Your task to perform on an android device: Add "amazon basics triple a" to the cart on amazon.com Image 0: 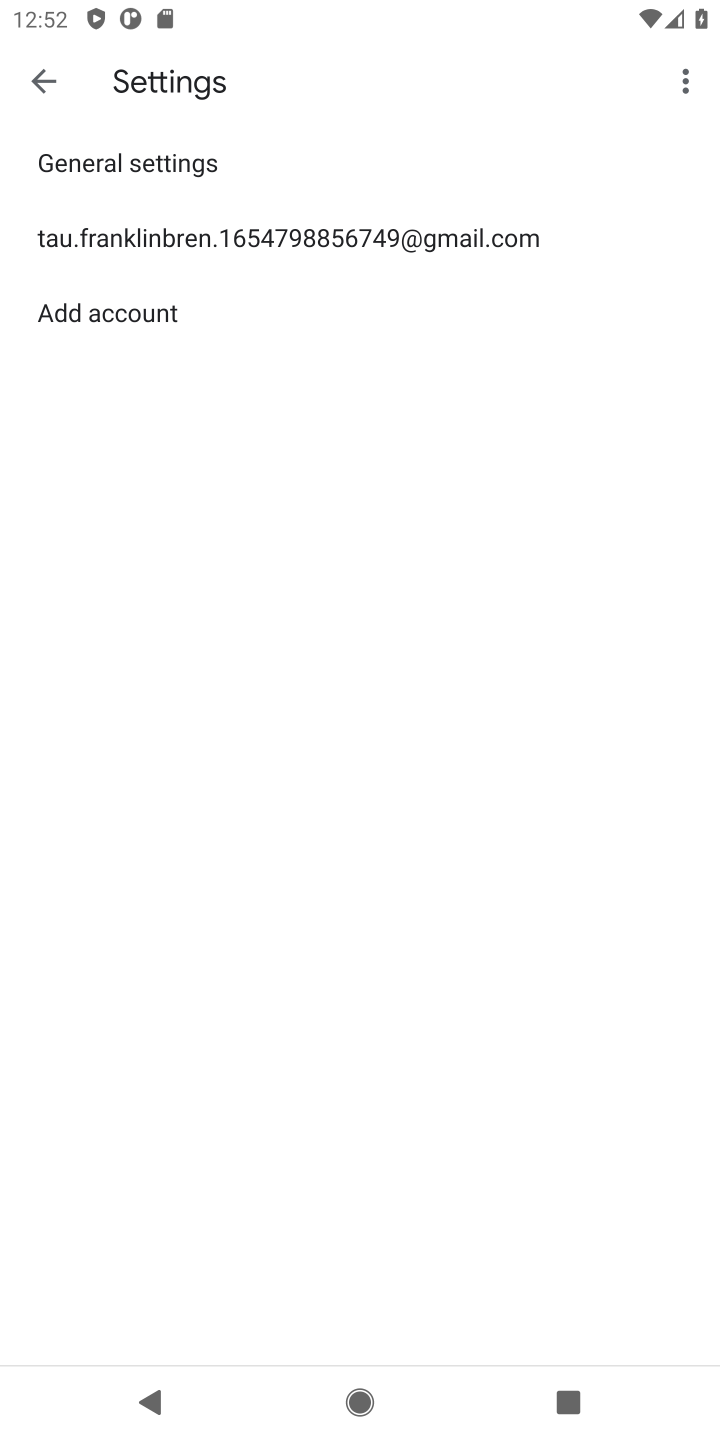
Step 0: press home button
Your task to perform on an android device: Add "amazon basics triple a" to the cart on amazon.com Image 1: 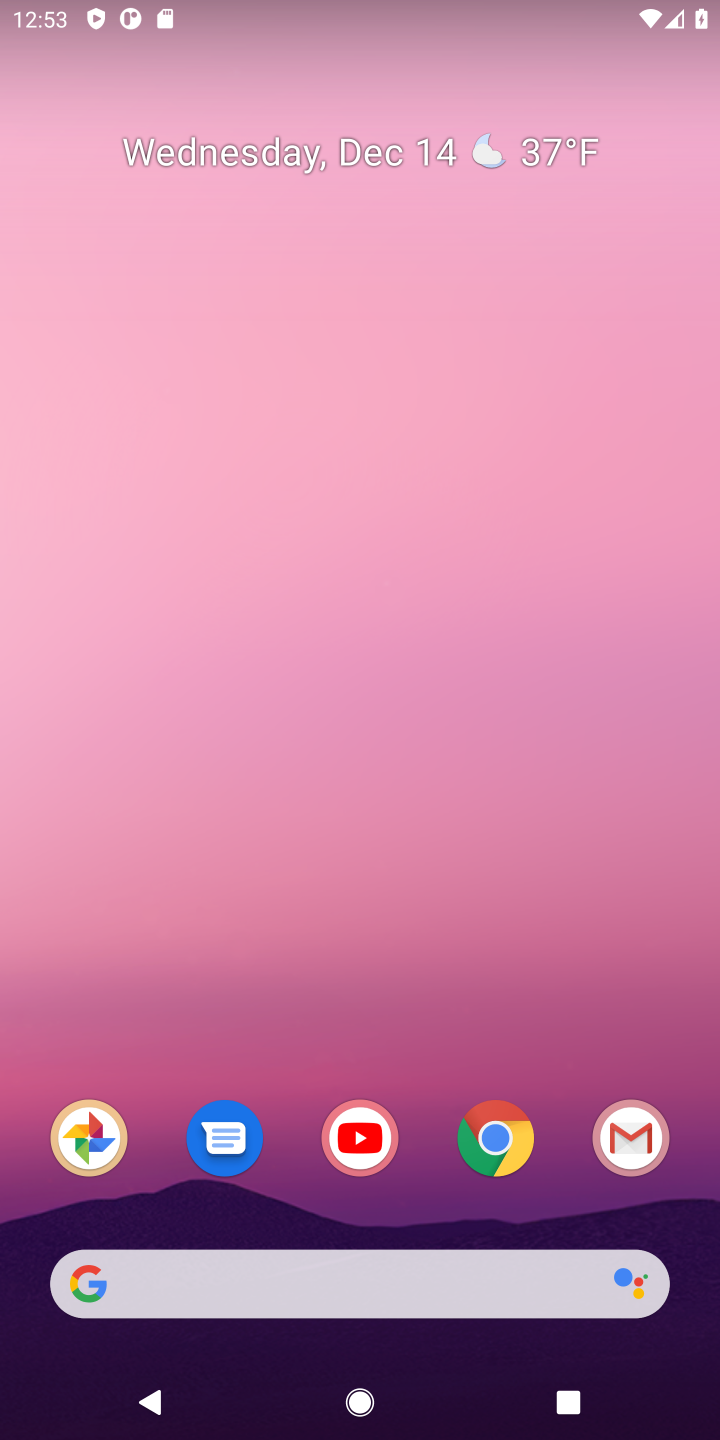
Step 1: click (497, 1132)
Your task to perform on an android device: Add "amazon basics triple a" to the cart on amazon.com Image 2: 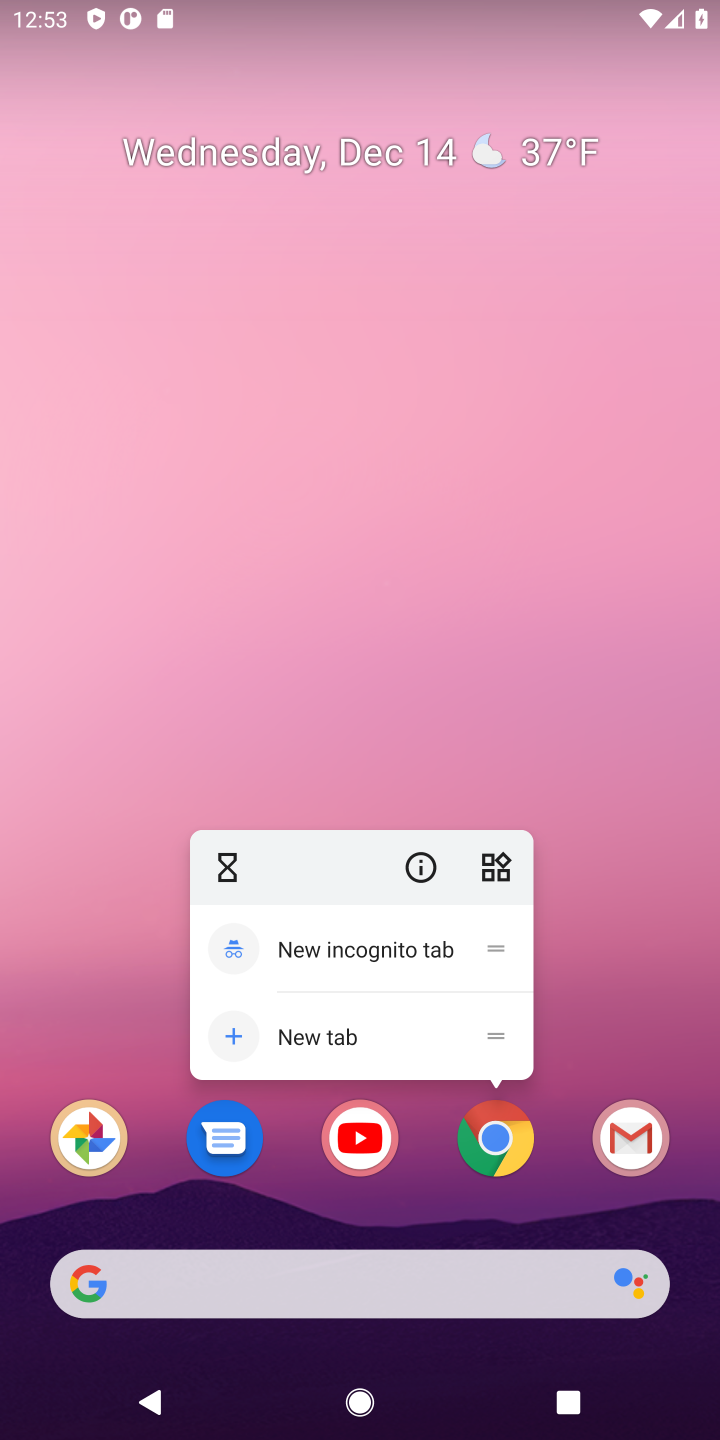
Step 2: click (482, 1136)
Your task to perform on an android device: Add "amazon basics triple a" to the cart on amazon.com Image 3: 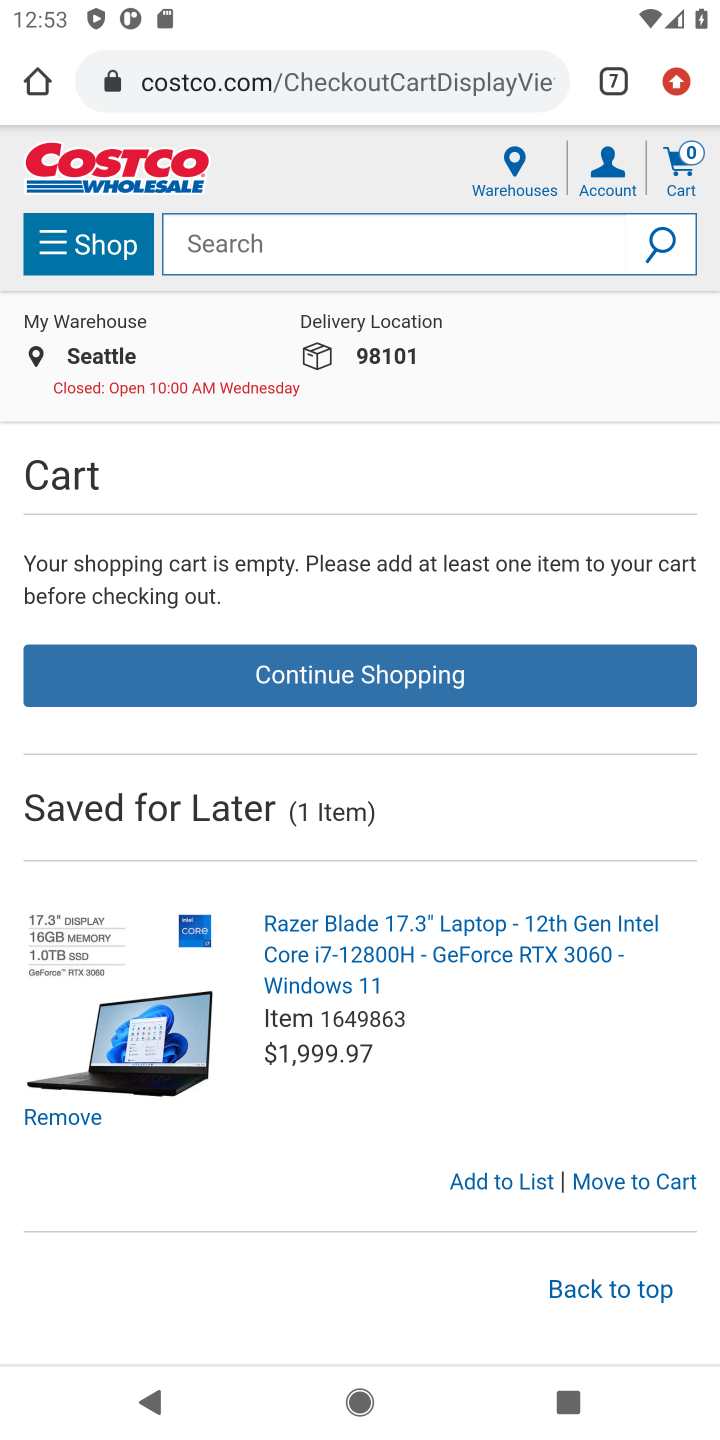
Step 3: click (615, 74)
Your task to perform on an android device: Add "amazon basics triple a" to the cart on amazon.com Image 4: 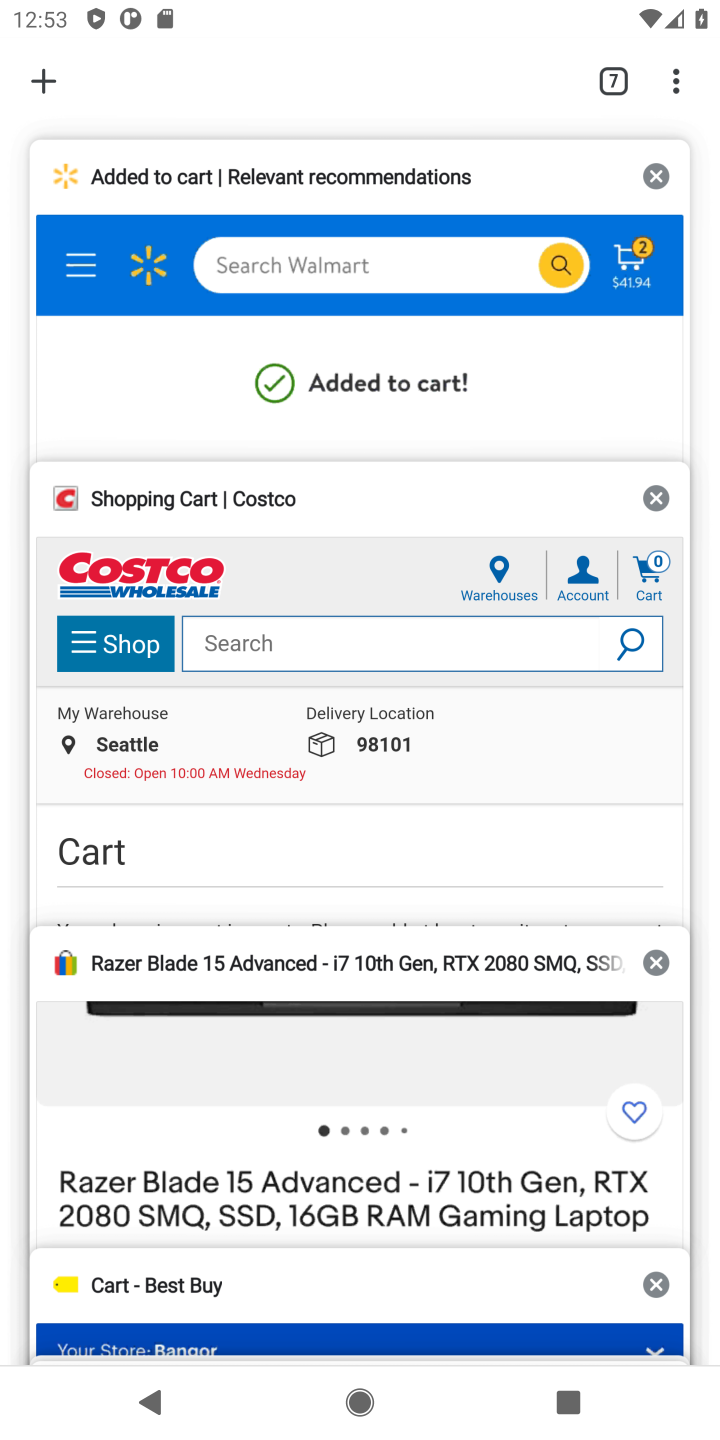
Step 4: drag from (416, 1139) to (406, 734)
Your task to perform on an android device: Add "amazon basics triple a" to the cart on amazon.com Image 5: 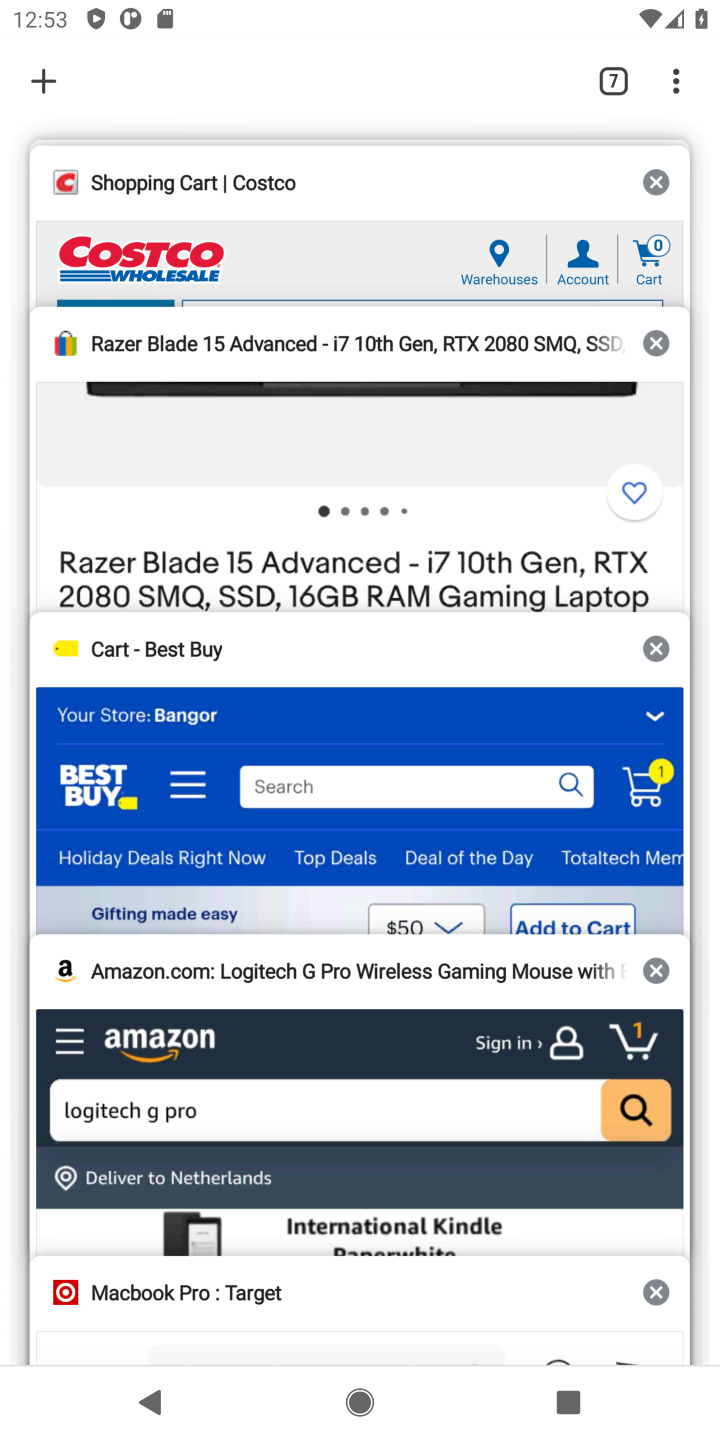
Step 5: click (364, 1054)
Your task to perform on an android device: Add "amazon basics triple a" to the cart on amazon.com Image 6: 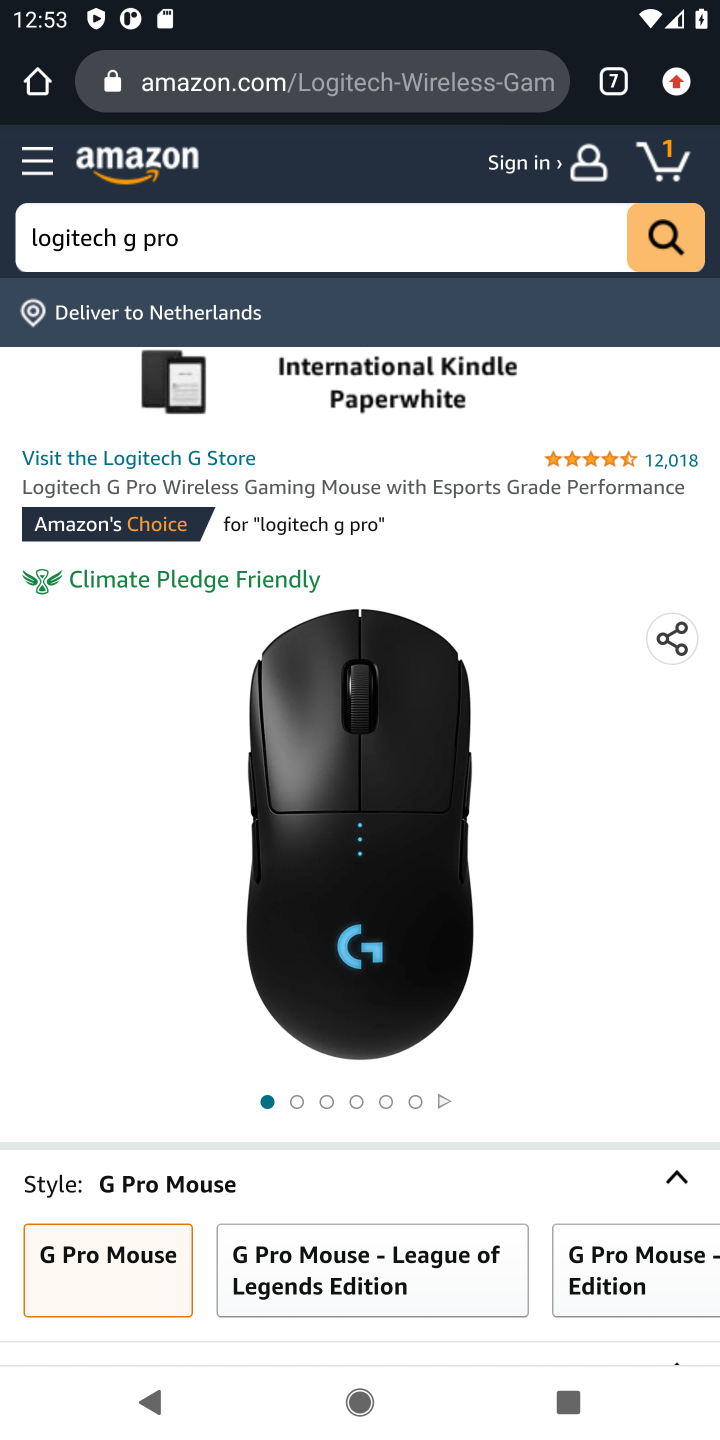
Step 6: click (543, 253)
Your task to perform on an android device: Add "amazon basics triple a" to the cart on amazon.com Image 7: 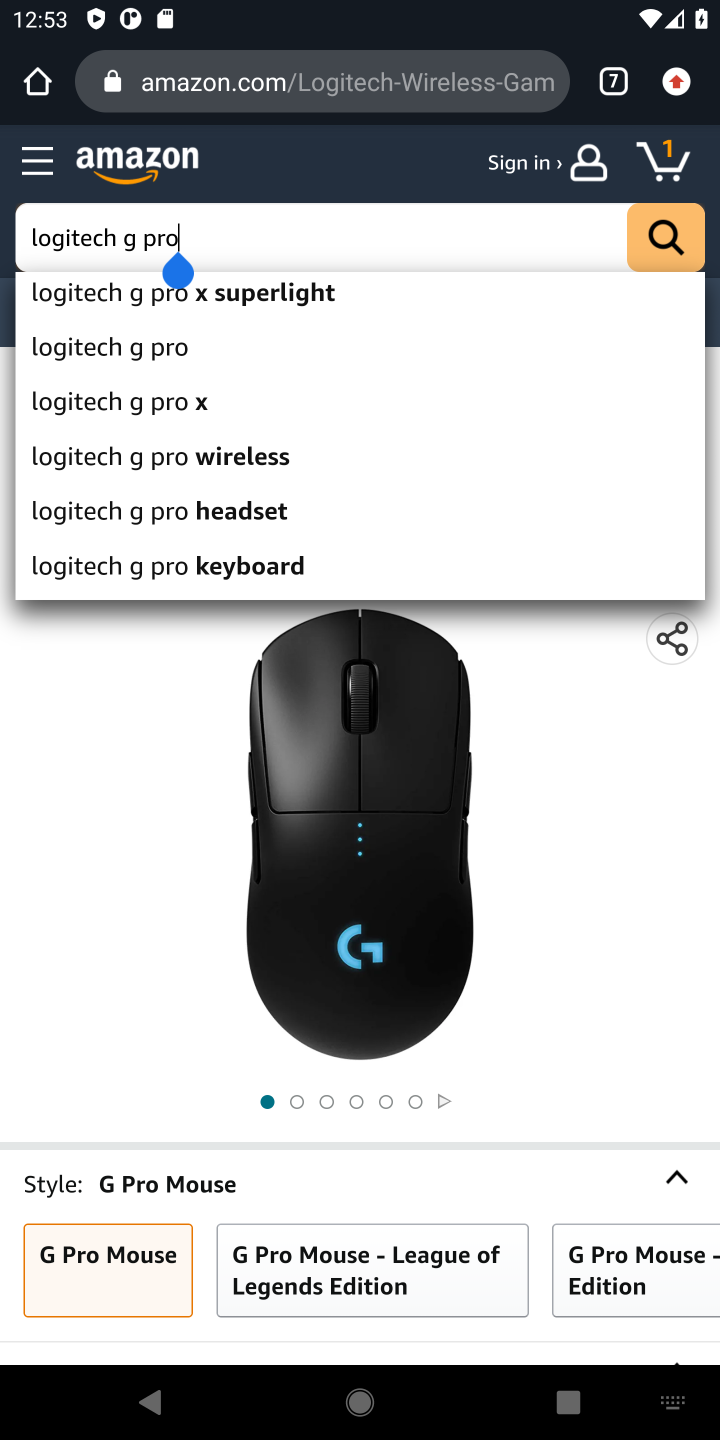
Step 7: click (555, 237)
Your task to perform on an android device: Add "amazon basics triple a" to the cart on amazon.com Image 8: 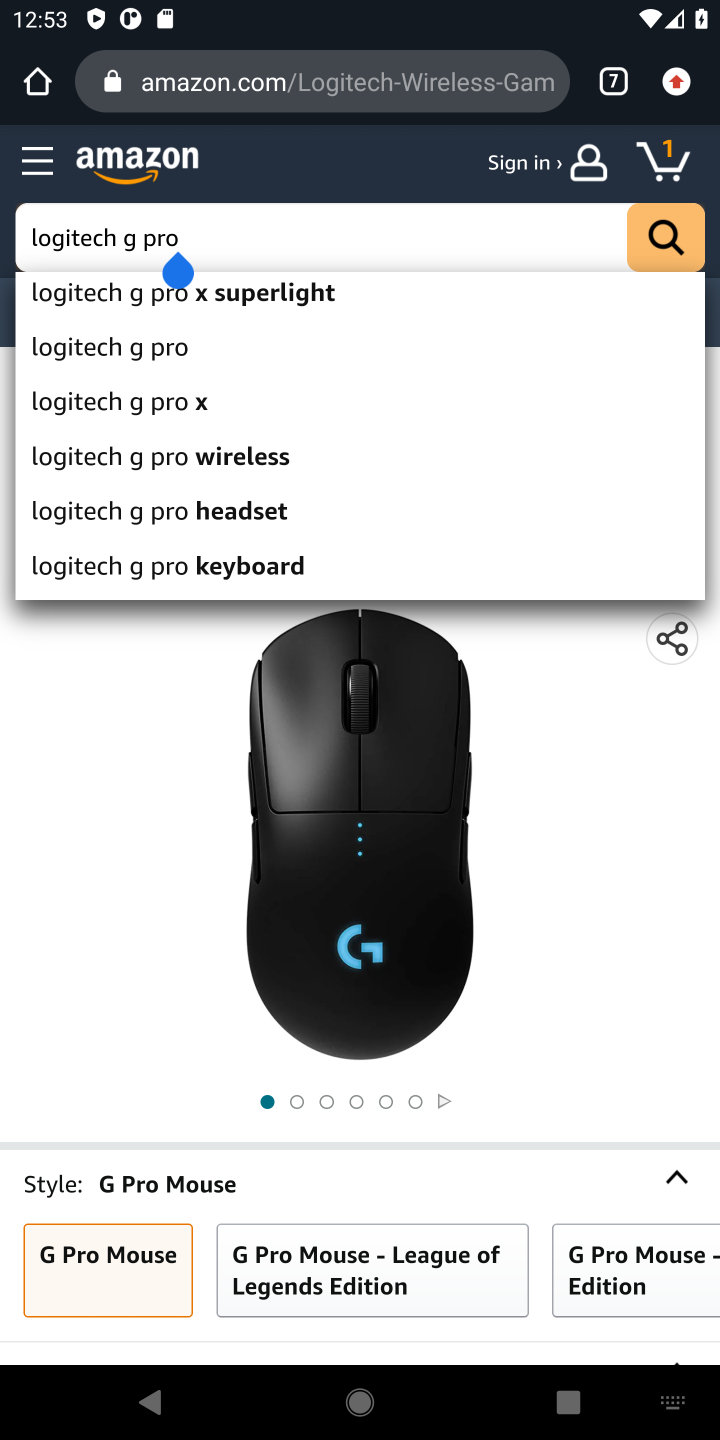
Step 8: click (651, 223)
Your task to perform on an android device: Add "amazon basics triple a" to the cart on amazon.com Image 9: 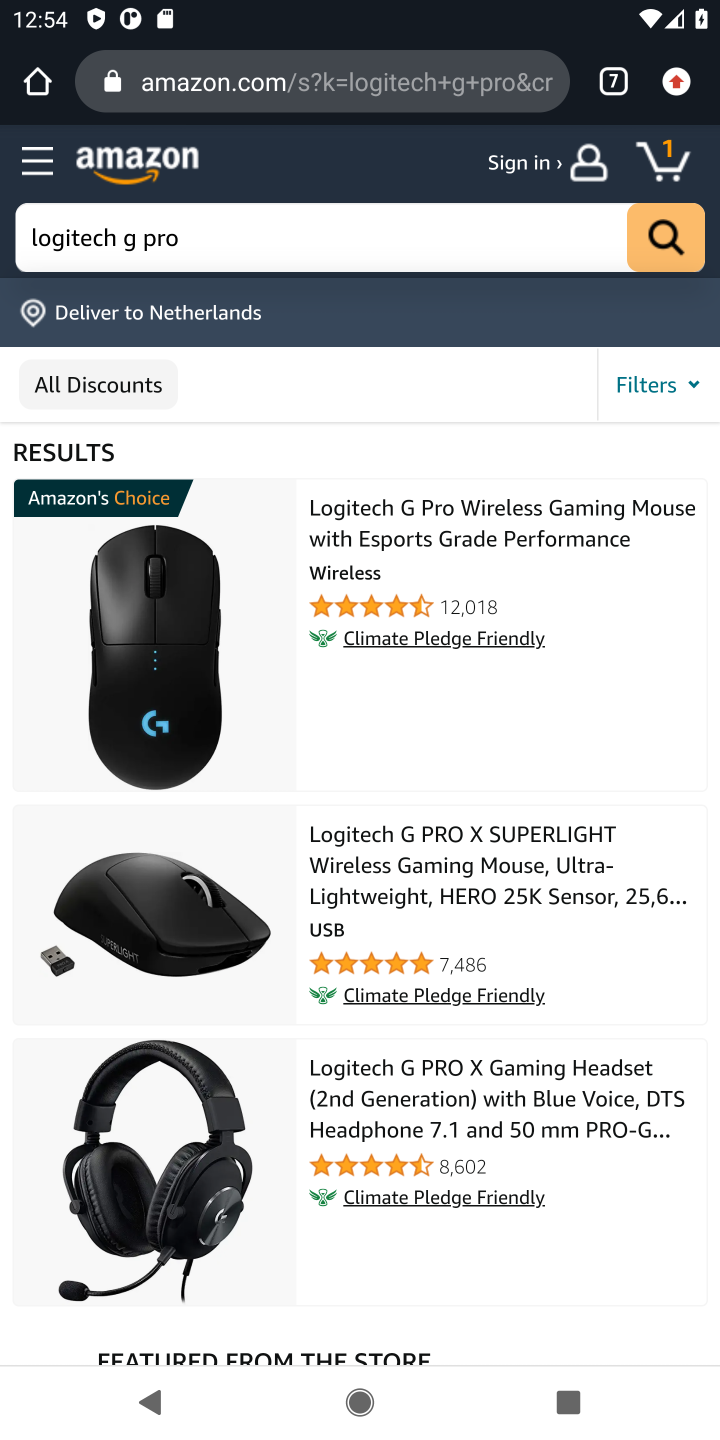
Step 9: click (347, 241)
Your task to perform on an android device: Add "amazon basics triple a" to the cart on amazon.com Image 10: 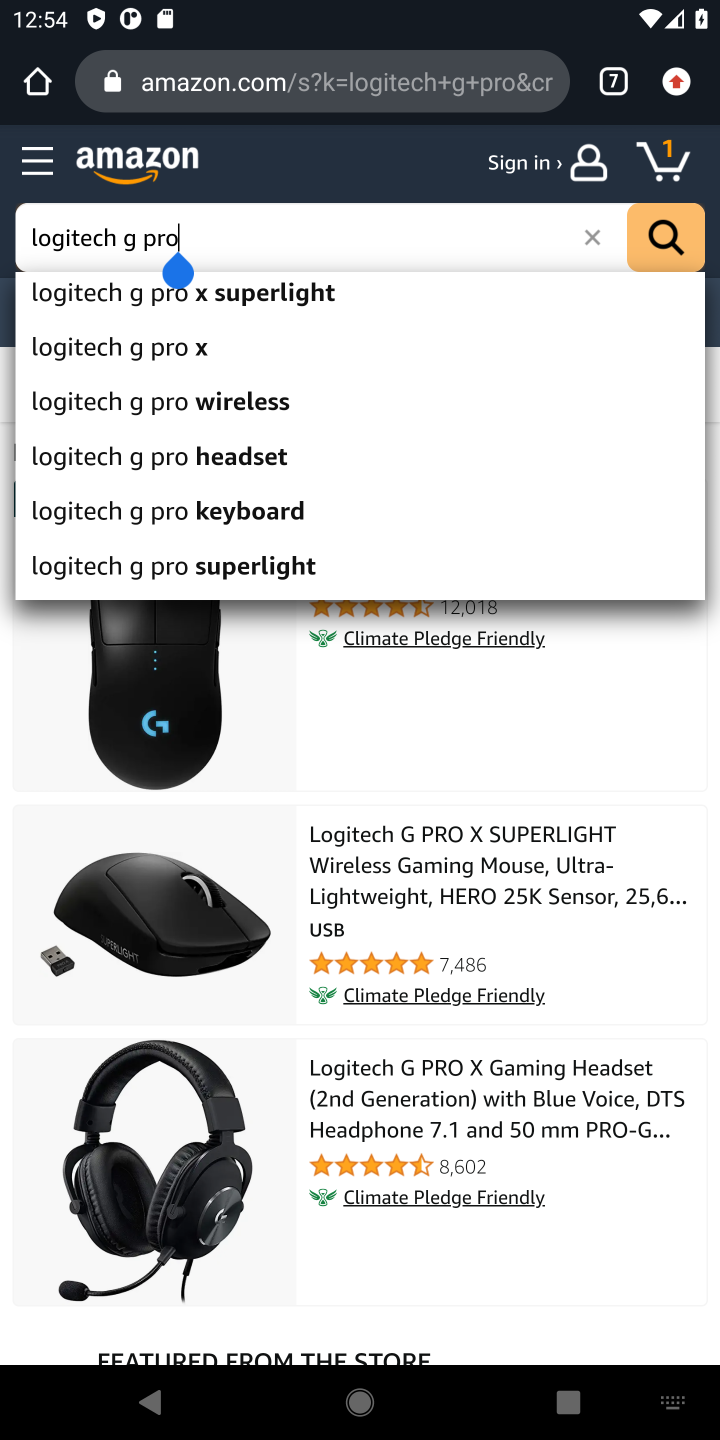
Step 10: click (591, 239)
Your task to perform on an android device: Add "amazon basics triple a" to the cart on amazon.com Image 11: 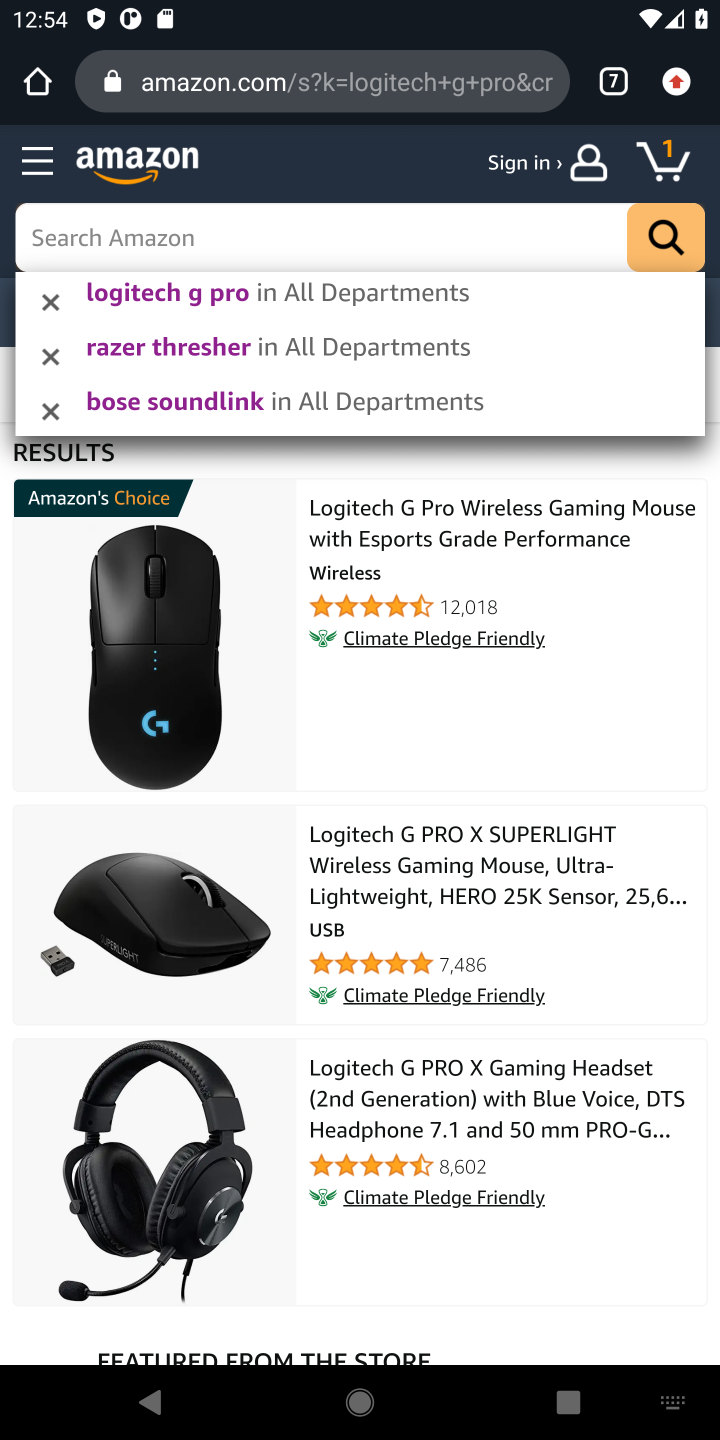
Step 11: type "amazon basics triple a batteries"
Your task to perform on an android device: Add "amazon basics triple a" to the cart on amazon.com Image 12: 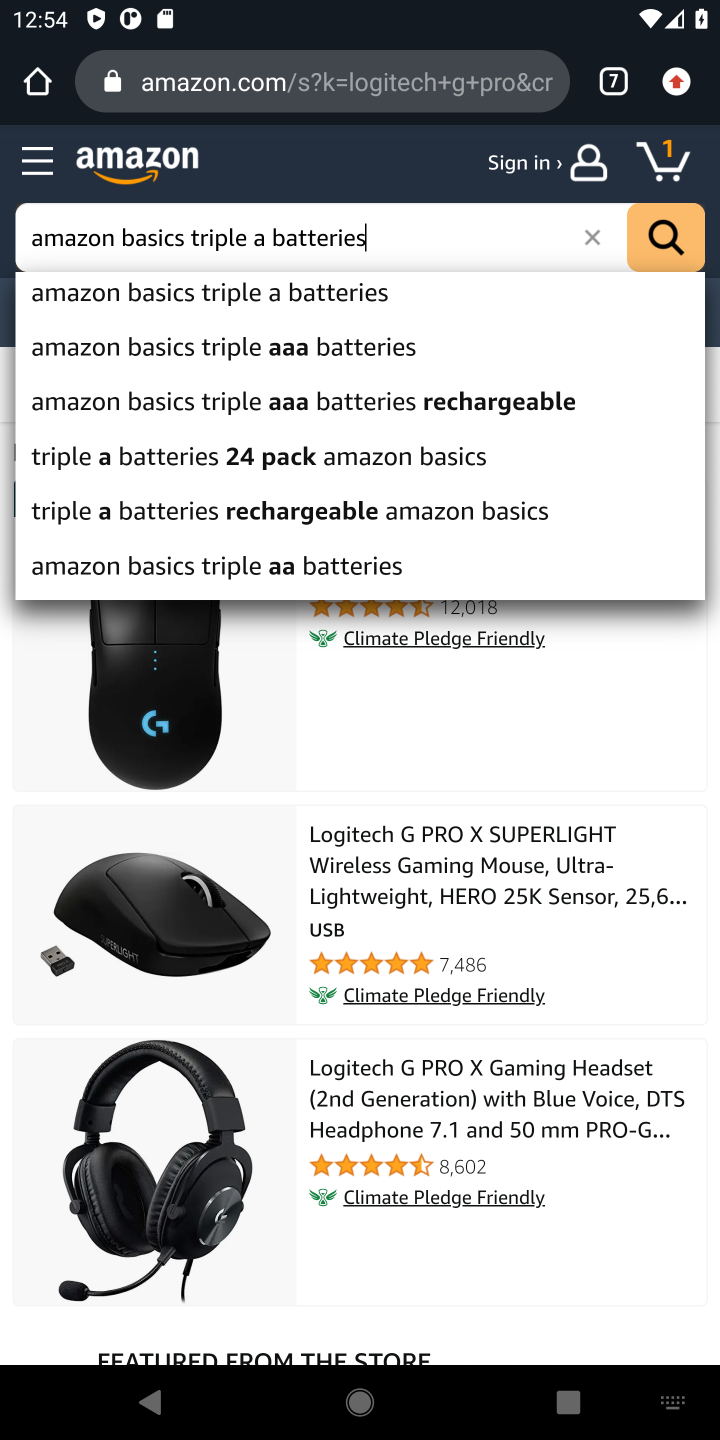
Step 12: click (348, 288)
Your task to perform on an android device: Add "amazon basics triple a" to the cart on amazon.com Image 13: 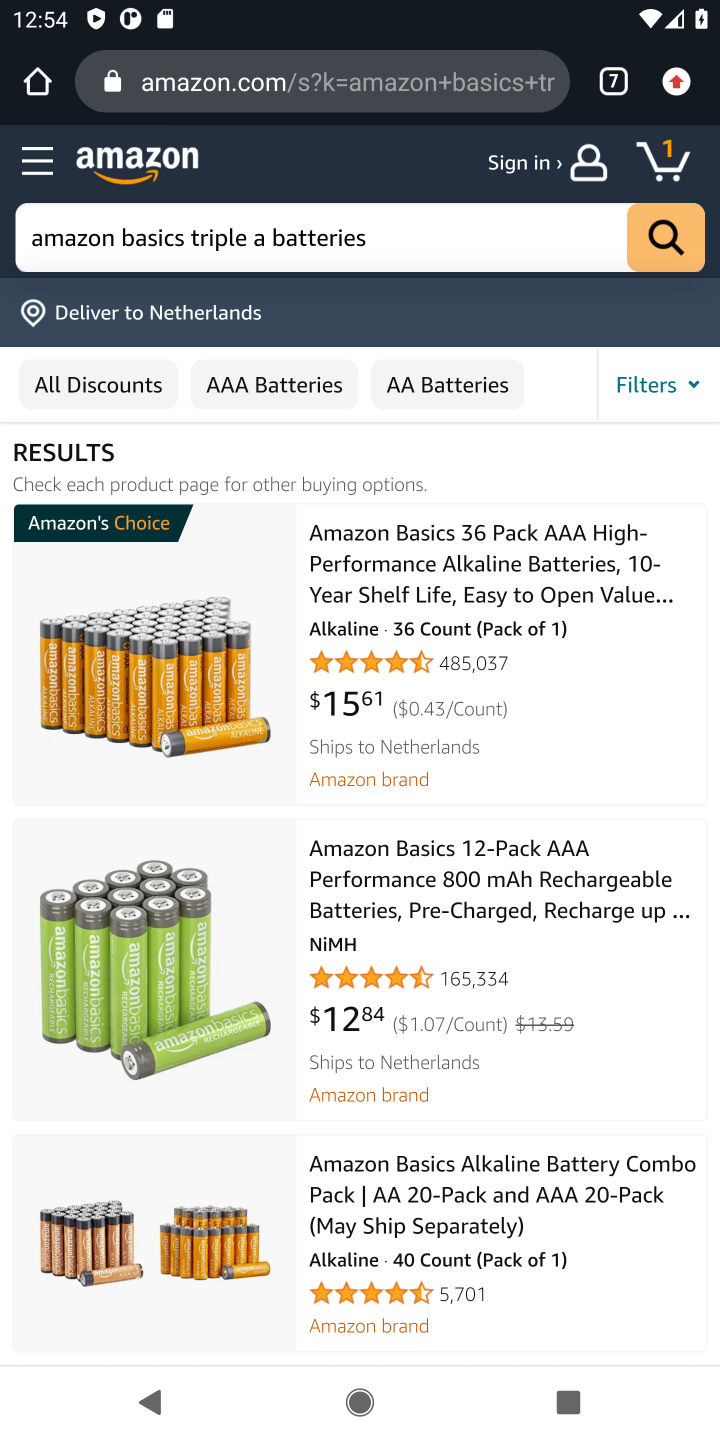
Step 13: click (505, 560)
Your task to perform on an android device: Add "amazon basics triple a" to the cart on amazon.com Image 14: 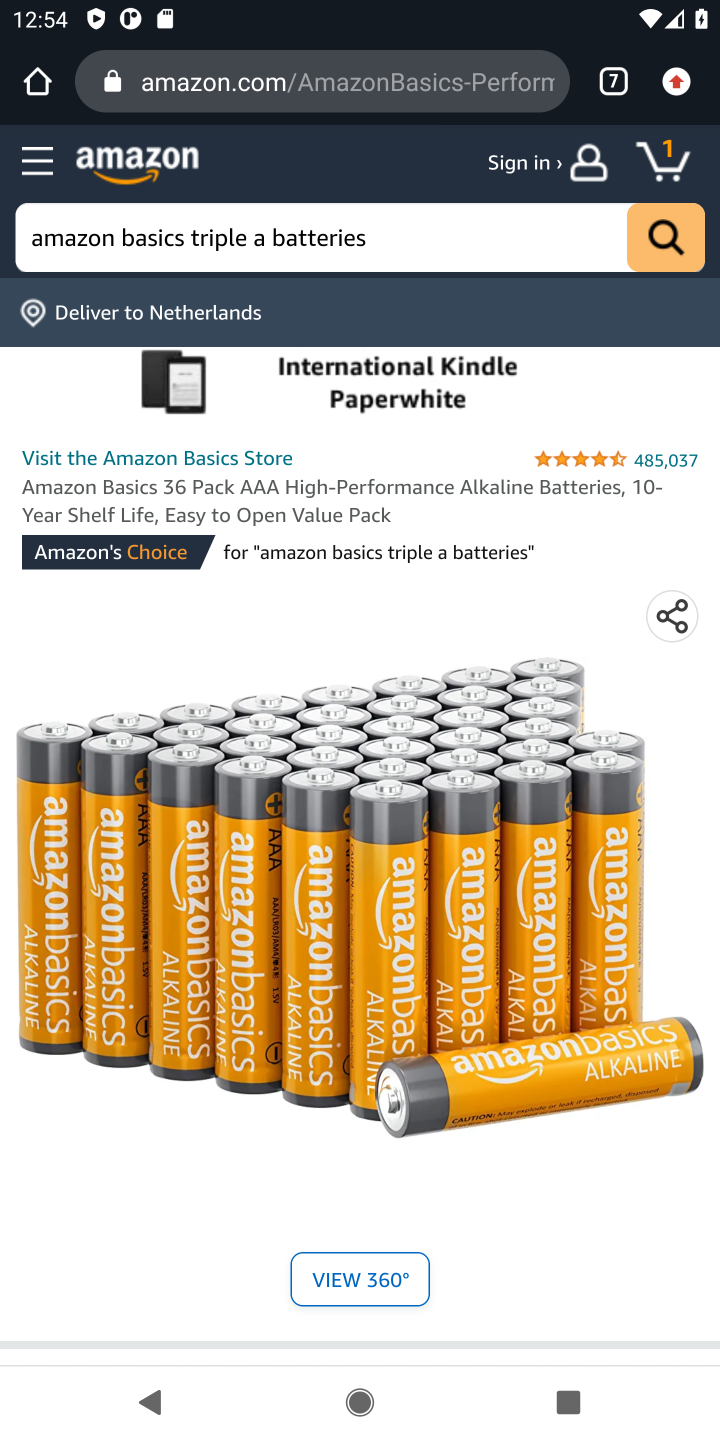
Step 14: drag from (458, 1126) to (605, 476)
Your task to perform on an android device: Add "amazon basics triple a" to the cart on amazon.com Image 15: 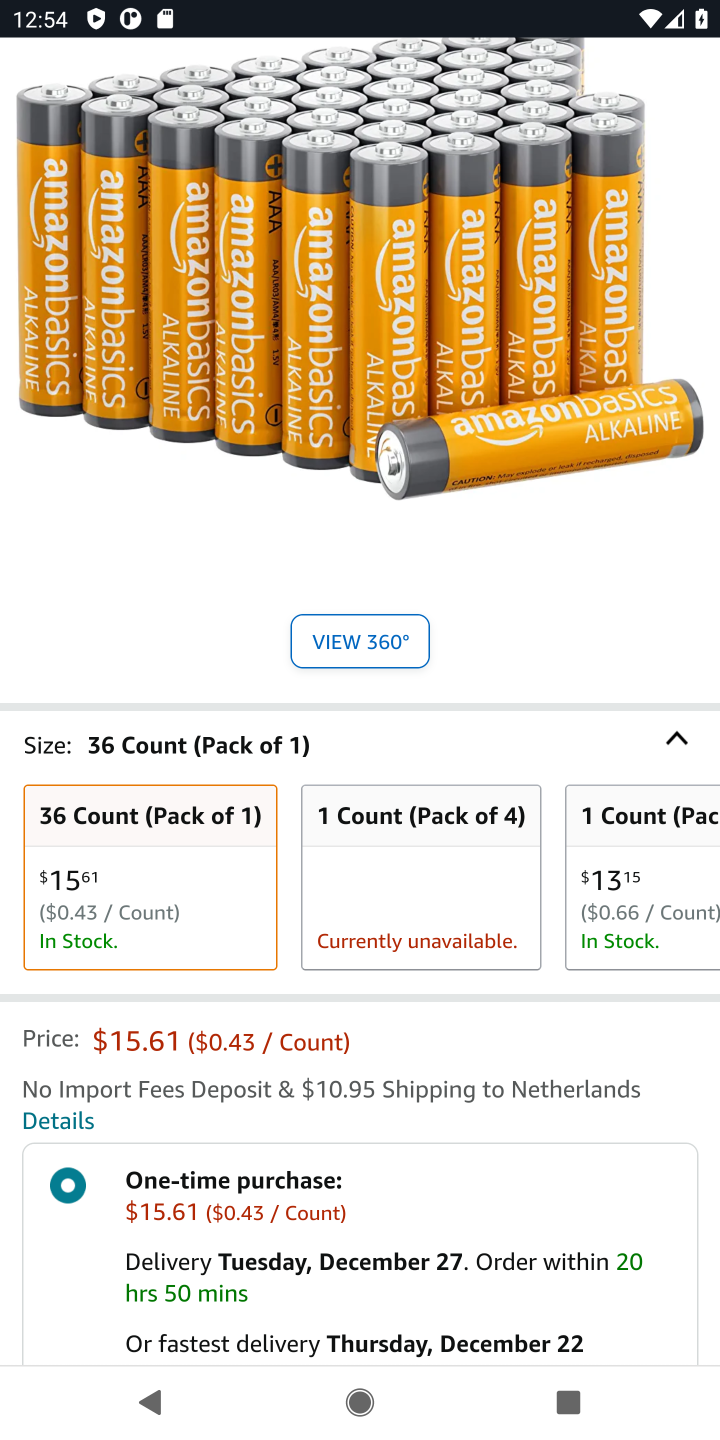
Step 15: drag from (399, 1080) to (436, 671)
Your task to perform on an android device: Add "amazon basics triple a" to the cart on amazon.com Image 16: 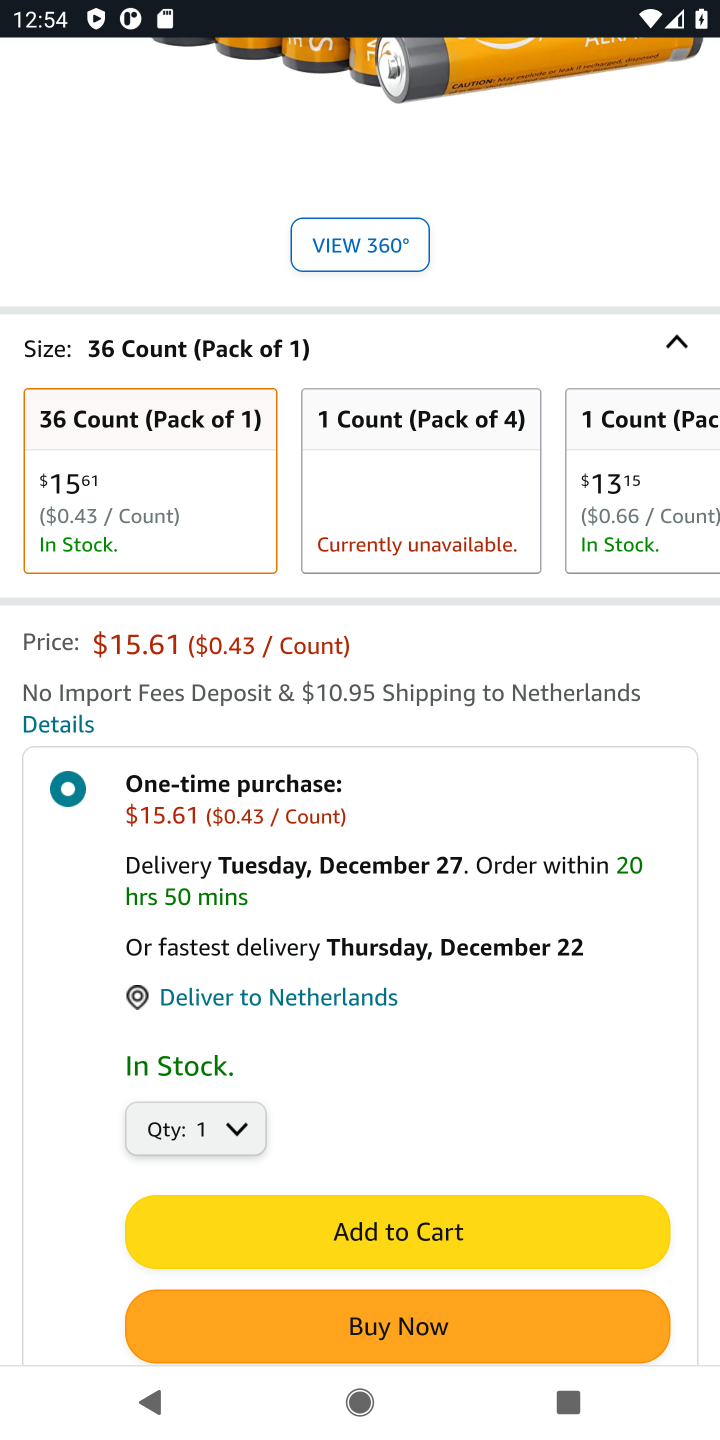
Step 16: click (456, 1230)
Your task to perform on an android device: Add "amazon basics triple a" to the cart on amazon.com Image 17: 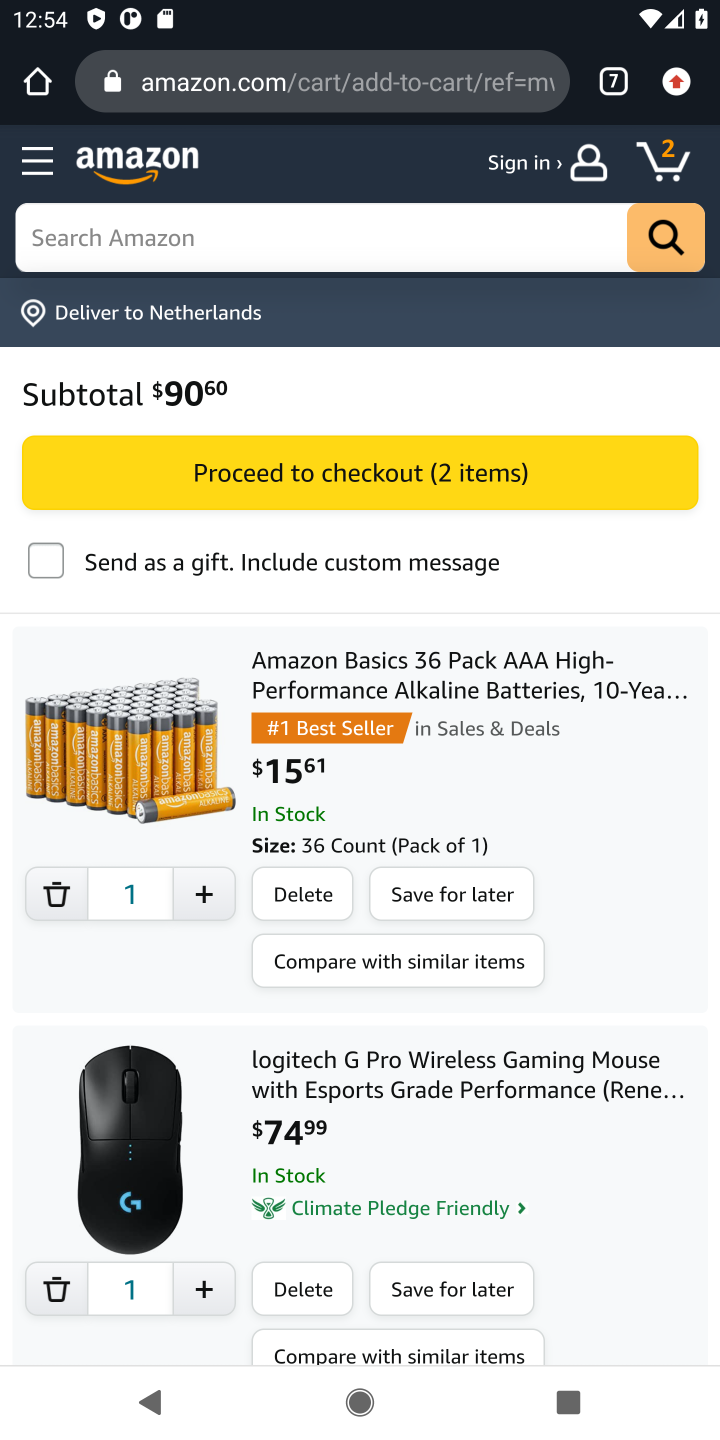
Step 17: task complete